Your task to perform on an android device: Do I have any events this weekend? Image 0: 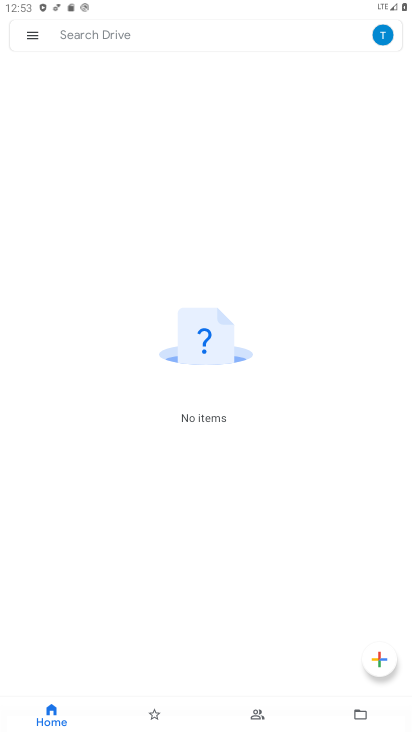
Step 0: press home button
Your task to perform on an android device: Do I have any events this weekend? Image 1: 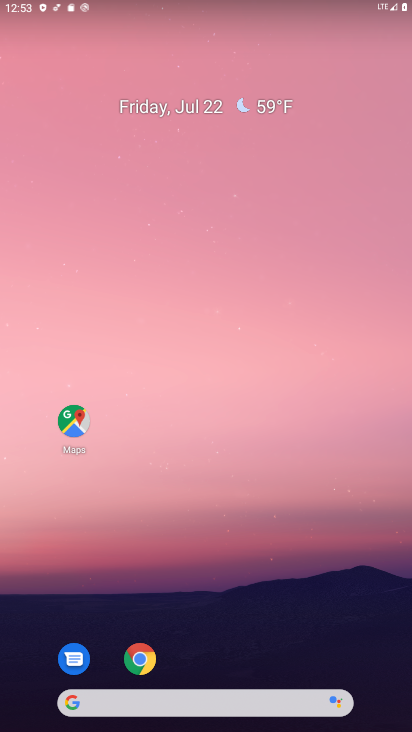
Step 1: drag from (233, 638) to (248, 268)
Your task to perform on an android device: Do I have any events this weekend? Image 2: 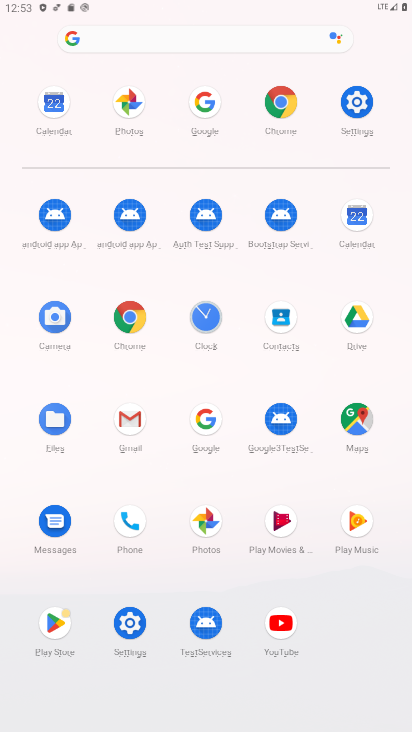
Step 2: click (356, 200)
Your task to perform on an android device: Do I have any events this weekend? Image 3: 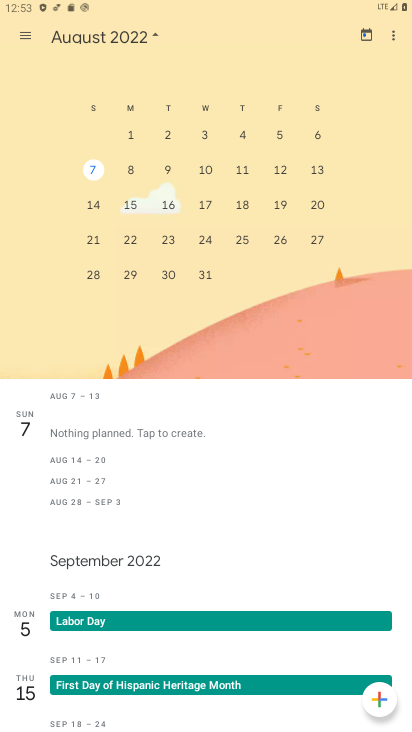
Step 3: click (328, 167)
Your task to perform on an android device: Do I have any events this weekend? Image 4: 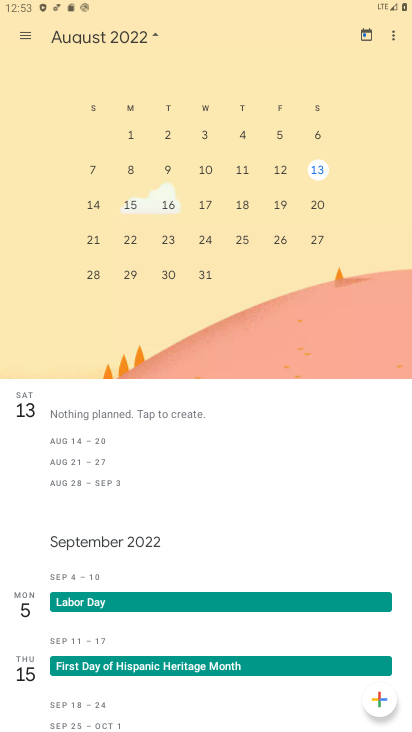
Step 4: drag from (86, 205) to (318, 207)
Your task to perform on an android device: Do I have any events this weekend? Image 5: 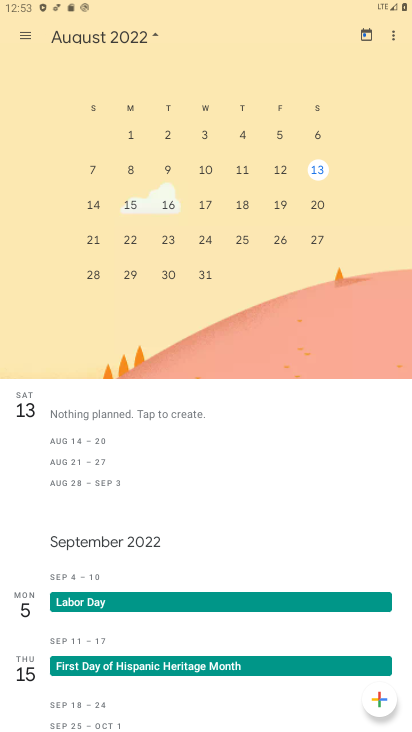
Step 5: drag from (97, 211) to (333, 210)
Your task to perform on an android device: Do I have any events this weekend? Image 6: 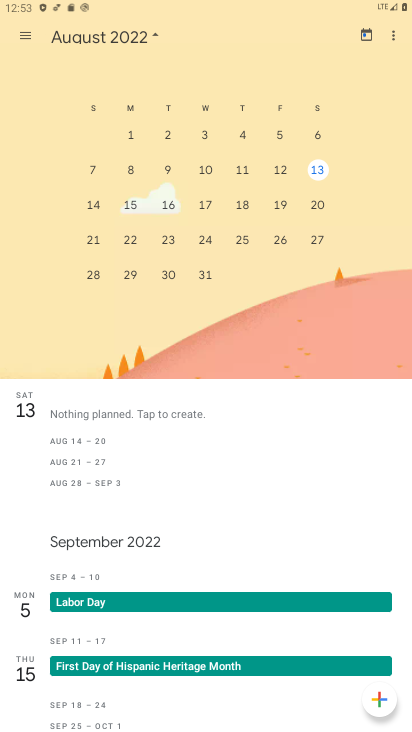
Step 6: drag from (97, 207) to (361, 204)
Your task to perform on an android device: Do I have any events this weekend? Image 7: 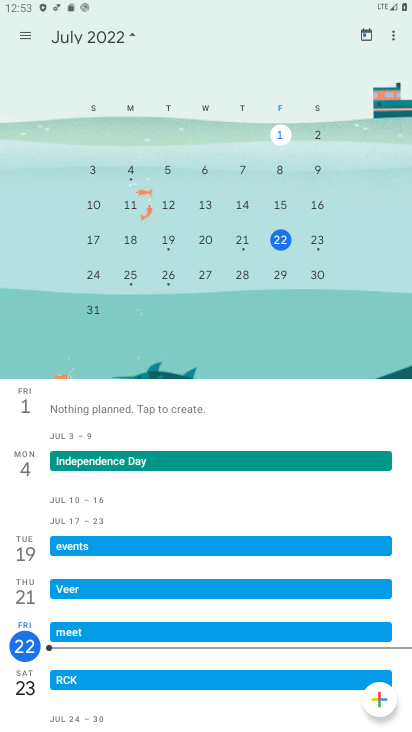
Step 7: click (308, 238)
Your task to perform on an android device: Do I have any events this weekend? Image 8: 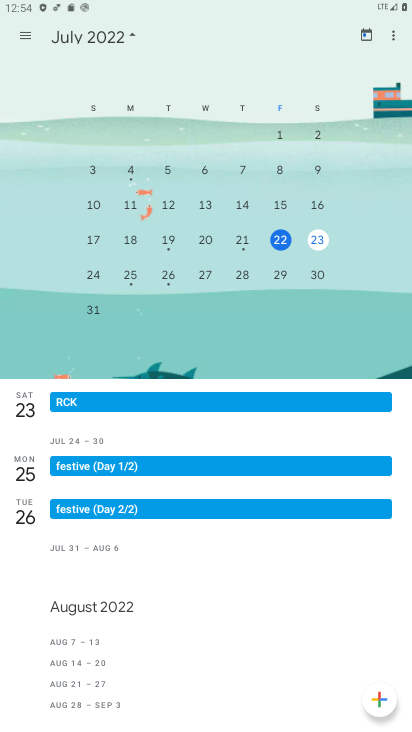
Step 8: task complete